Your task to perform on an android device: Open Chrome and go to settings Image 0: 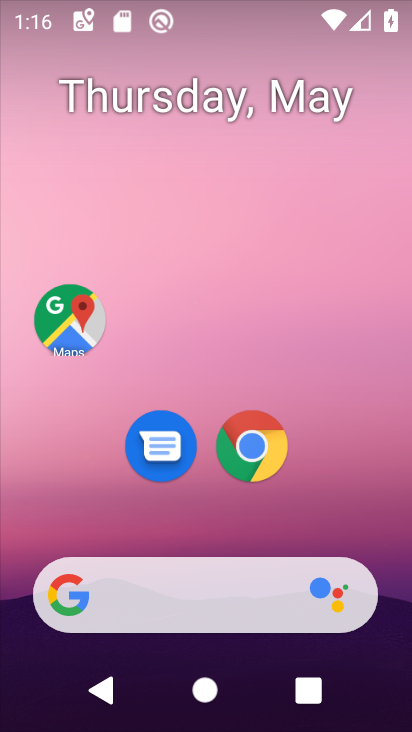
Step 0: click (256, 452)
Your task to perform on an android device: Open Chrome and go to settings Image 1: 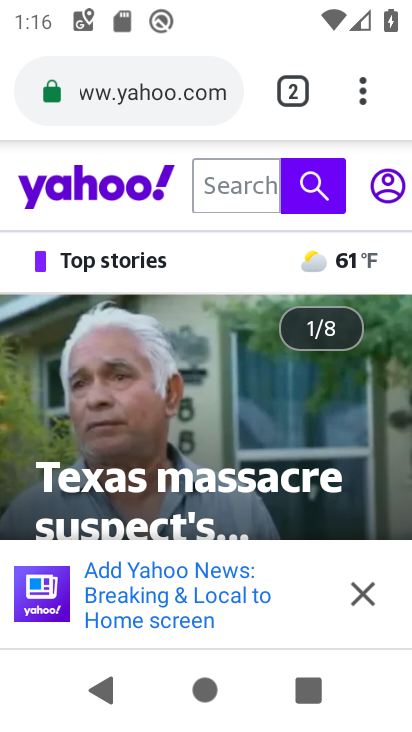
Step 1: click (361, 86)
Your task to perform on an android device: Open Chrome and go to settings Image 2: 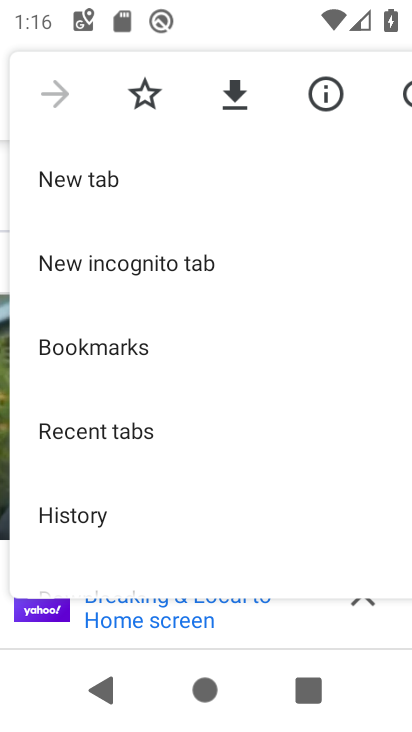
Step 2: drag from (118, 511) to (177, 112)
Your task to perform on an android device: Open Chrome and go to settings Image 3: 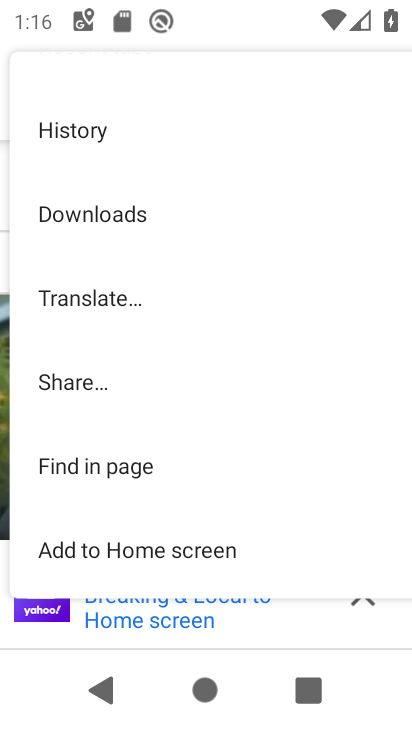
Step 3: drag from (127, 455) to (170, 192)
Your task to perform on an android device: Open Chrome and go to settings Image 4: 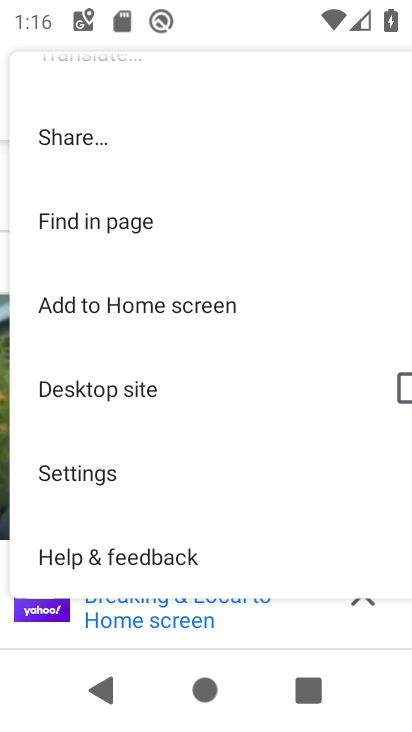
Step 4: click (99, 467)
Your task to perform on an android device: Open Chrome and go to settings Image 5: 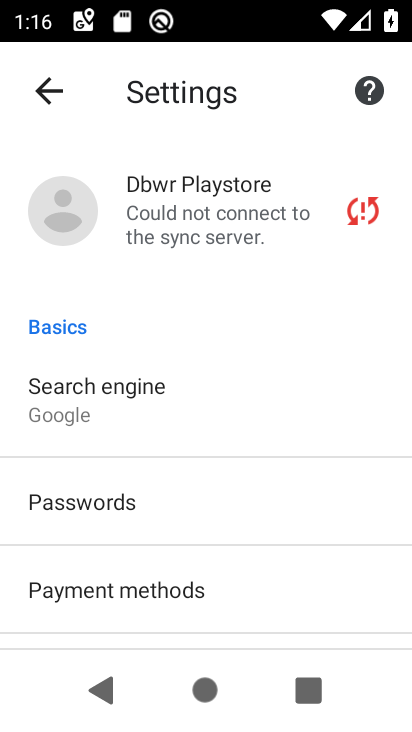
Step 5: task complete